Your task to perform on an android device: Open Wikipedia Image 0: 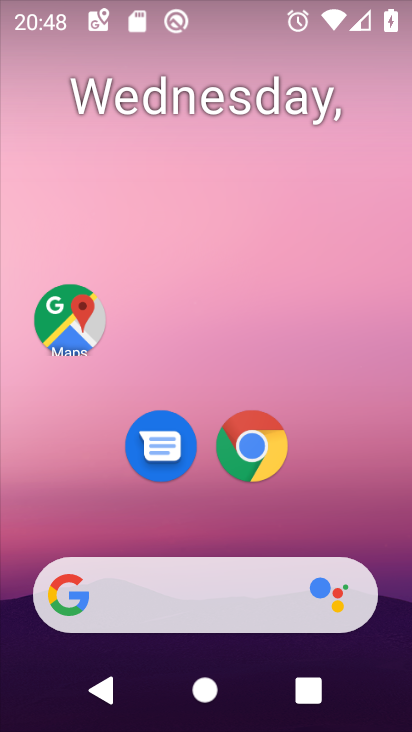
Step 0: drag from (208, 571) to (142, 1)
Your task to perform on an android device: Open Wikipedia Image 1: 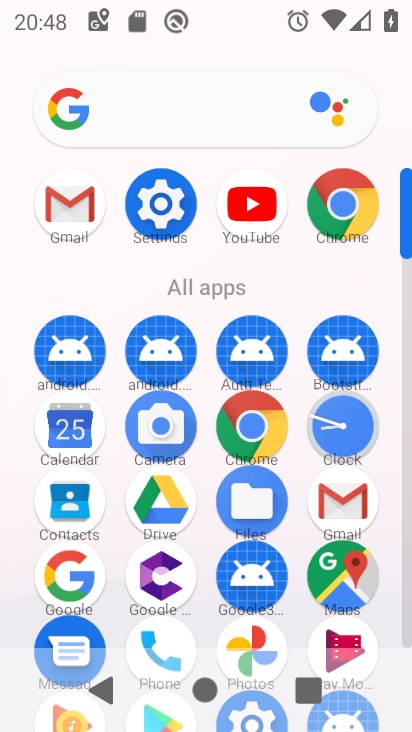
Step 1: click (326, 200)
Your task to perform on an android device: Open Wikipedia Image 2: 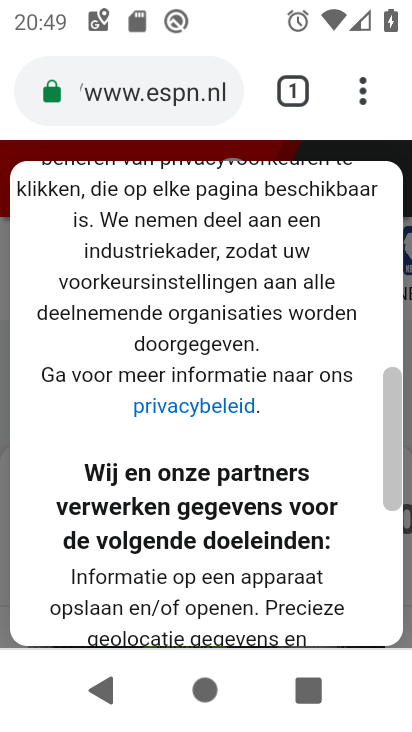
Step 2: click (118, 87)
Your task to perform on an android device: Open Wikipedia Image 3: 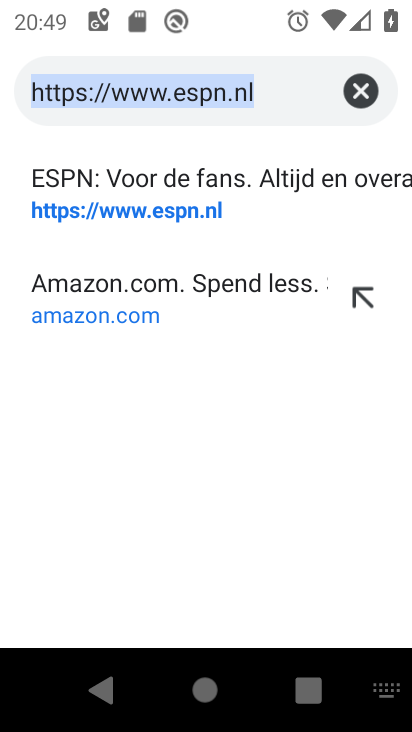
Step 3: type "wikipedia"
Your task to perform on an android device: Open Wikipedia Image 4: 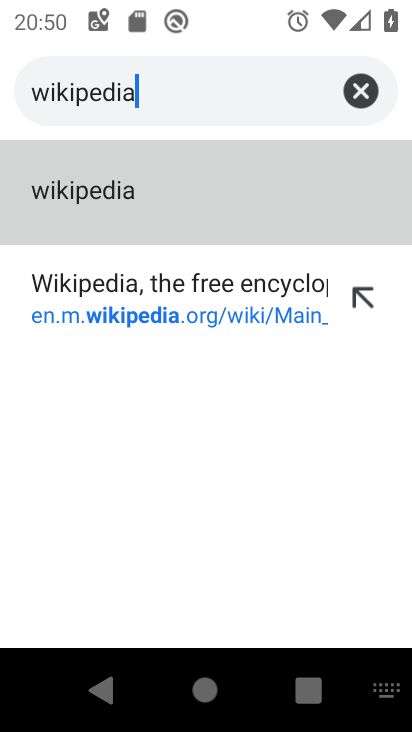
Step 4: click (139, 304)
Your task to perform on an android device: Open Wikipedia Image 5: 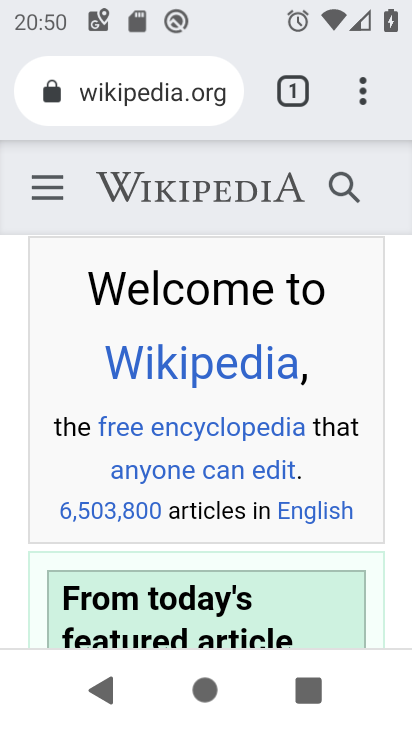
Step 5: task complete